Your task to perform on an android device: Open calendar and show me the third week of next month Image 0: 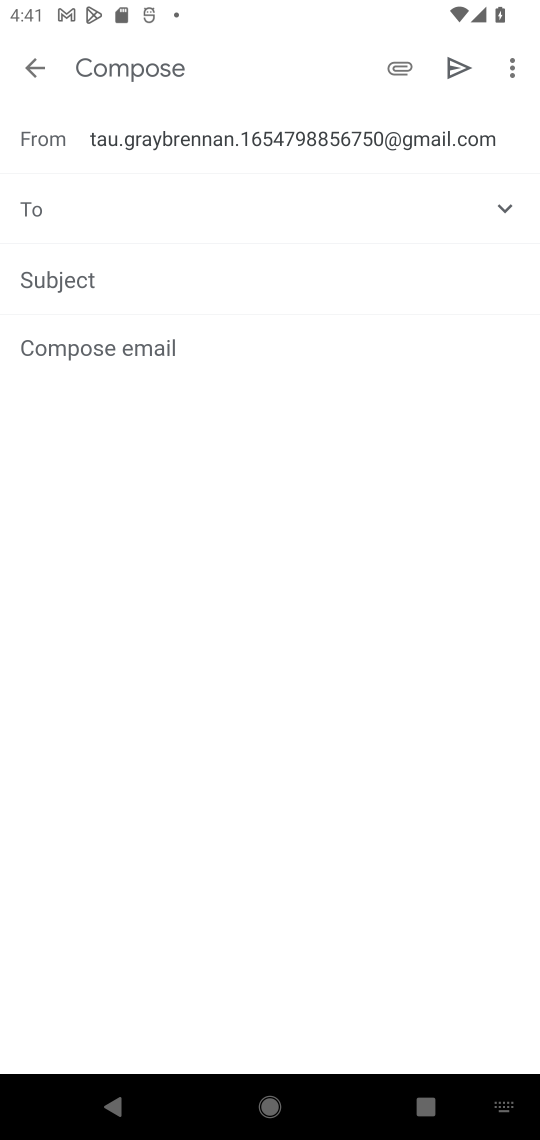
Step 0: press home button
Your task to perform on an android device: Open calendar and show me the third week of next month Image 1: 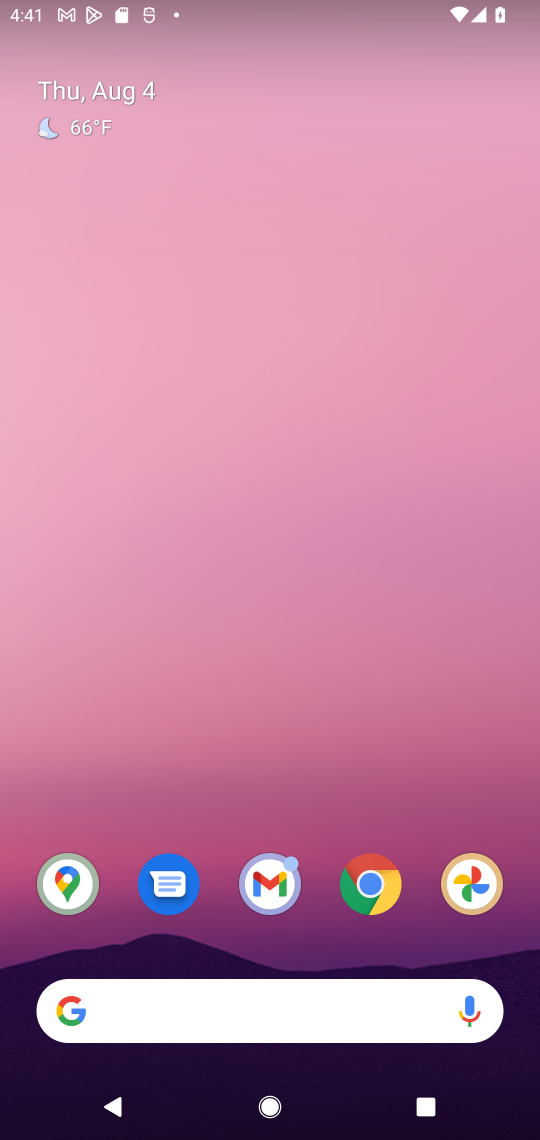
Step 1: click (378, 907)
Your task to perform on an android device: Open calendar and show me the third week of next month Image 2: 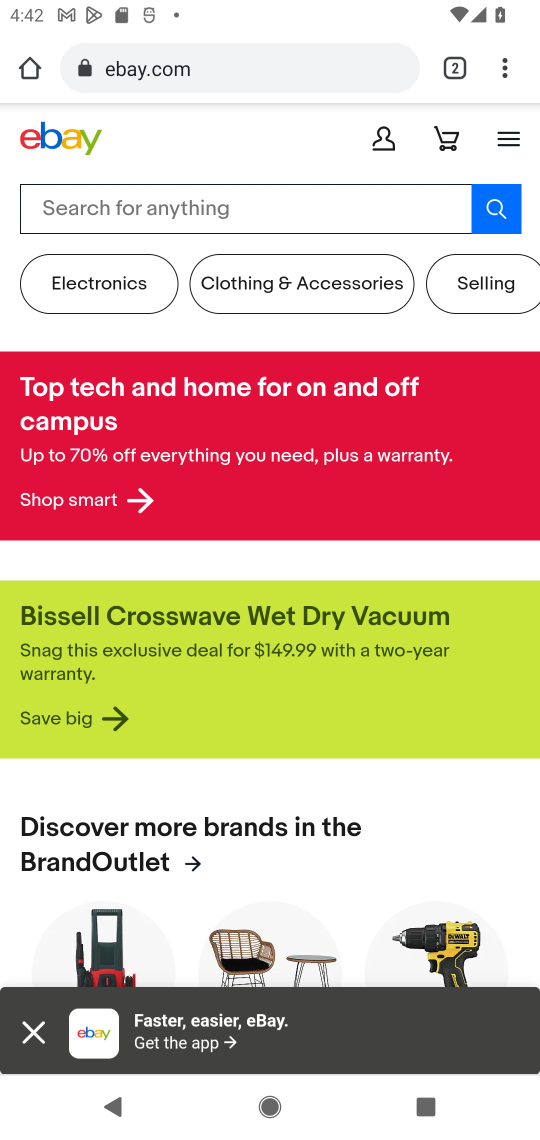
Step 2: press home button
Your task to perform on an android device: Open calendar and show me the third week of next month Image 3: 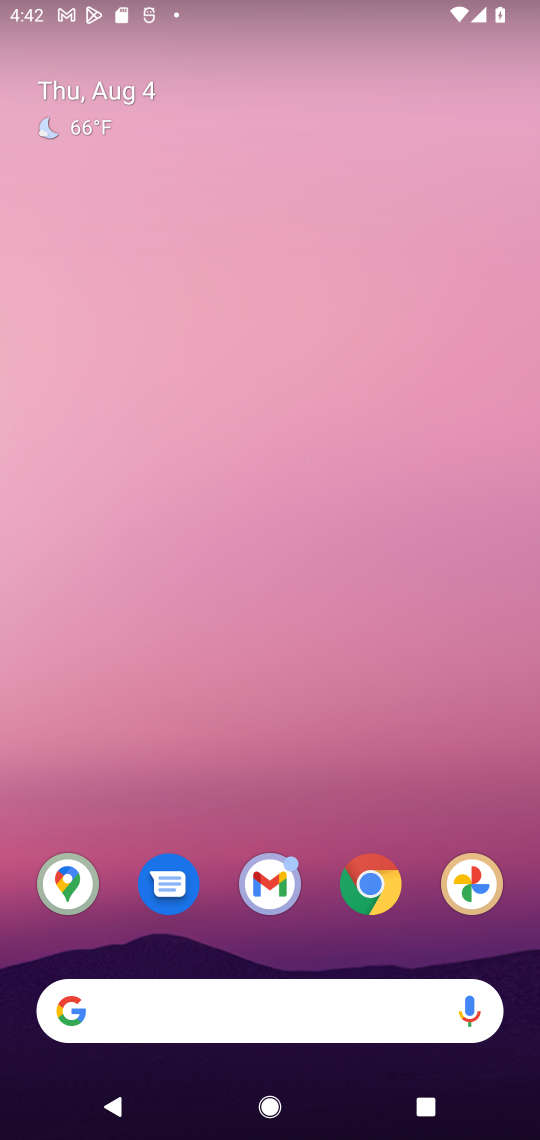
Step 3: drag from (225, 951) to (108, 0)
Your task to perform on an android device: Open calendar and show me the third week of next month Image 4: 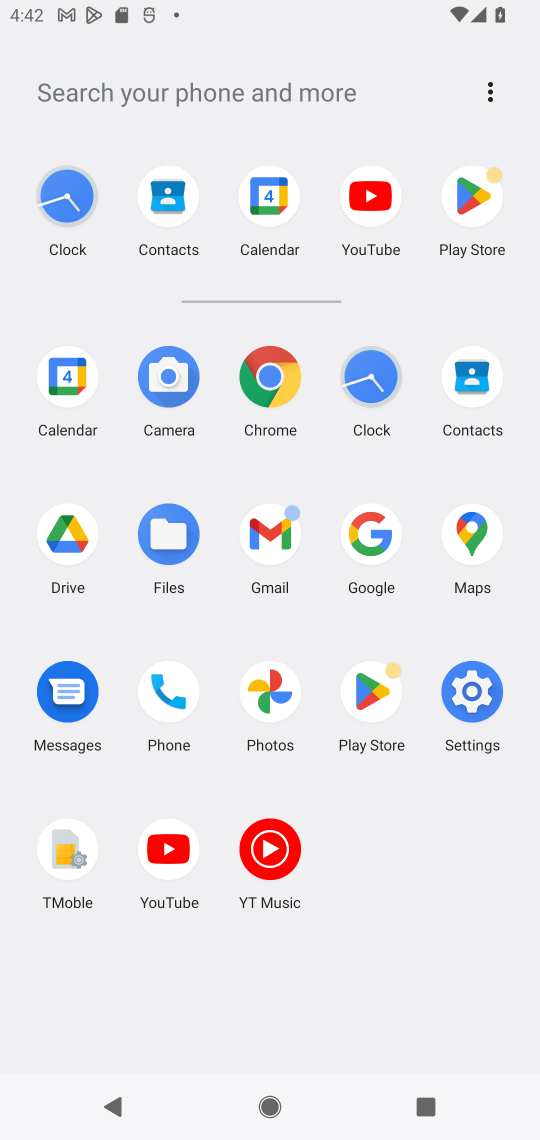
Step 4: click (258, 217)
Your task to perform on an android device: Open calendar and show me the third week of next month Image 5: 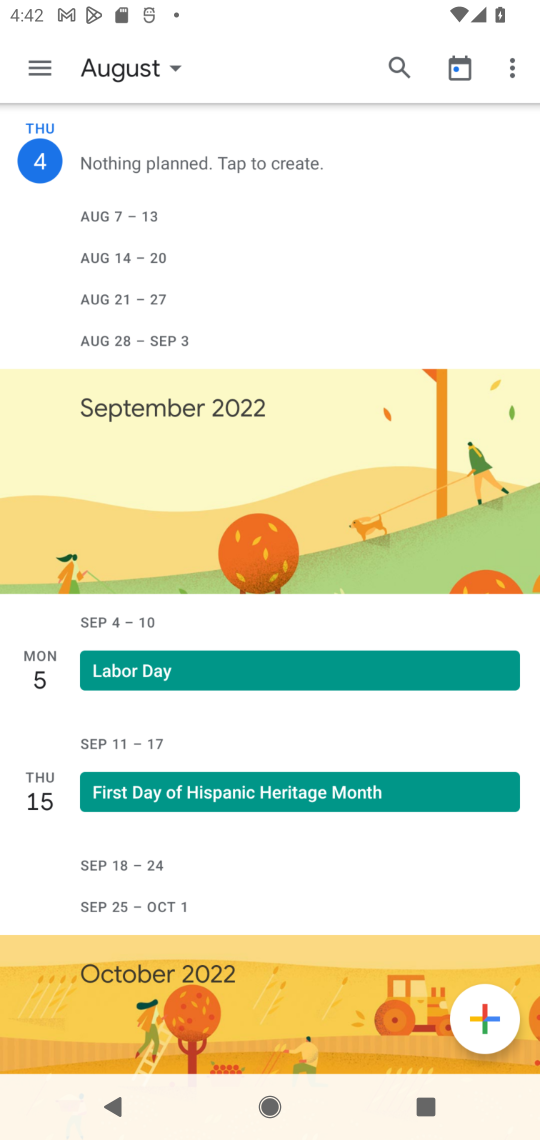
Step 5: task complete